Your task to perform on an android device: Open the Play Movies app and select the watchlist tab. Image 0: 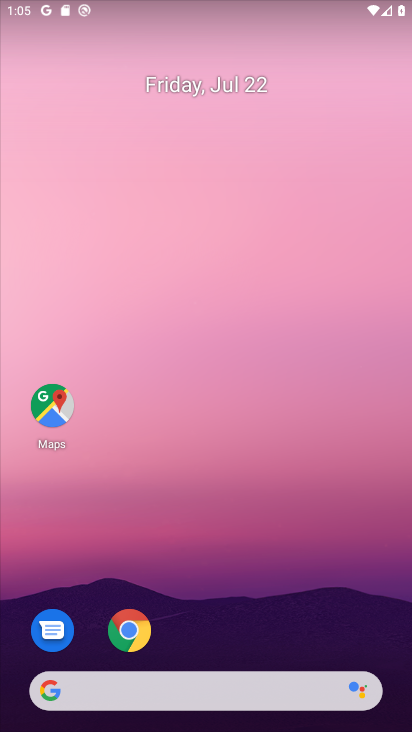
Step 0: drag from (244, 559) to (314, 76)
Your task to perform on an android device: Open the Play Movies app and select the watchlist tab. Image 1: 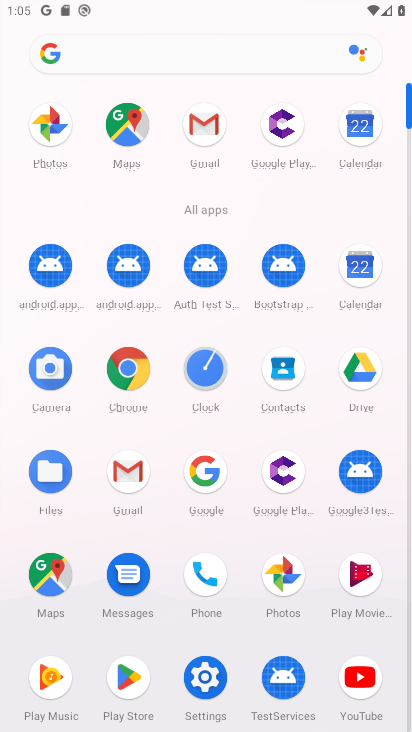
Step 1: click (358, 583)
Your task to perform on an android device: Open the Play Movies app and select the watchlist tab. Image 2: 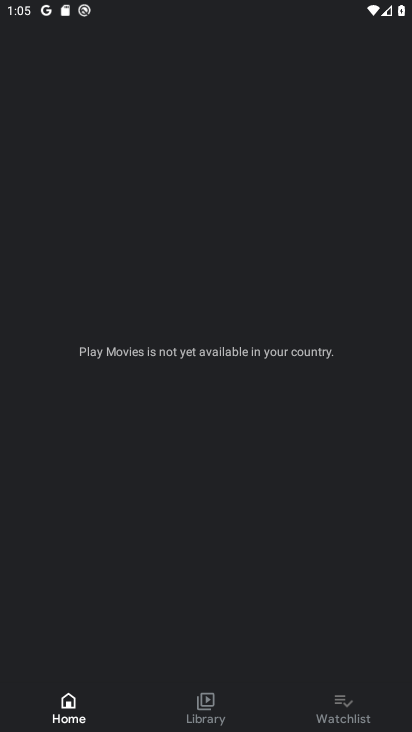
Step 2: click (340, 710)
Your task to perform on an android device: Open the Play Movies app and select the watchlist tab. Image 3: 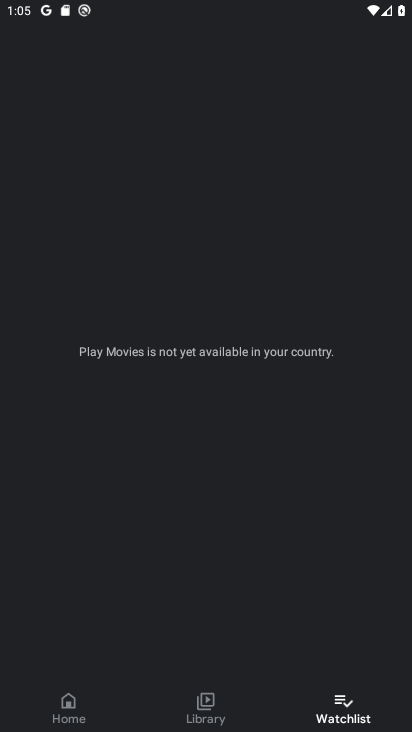
Step 3: task complete